Your task to perform on an android device: Open the phone app and click the voicemail tab. Image 0: 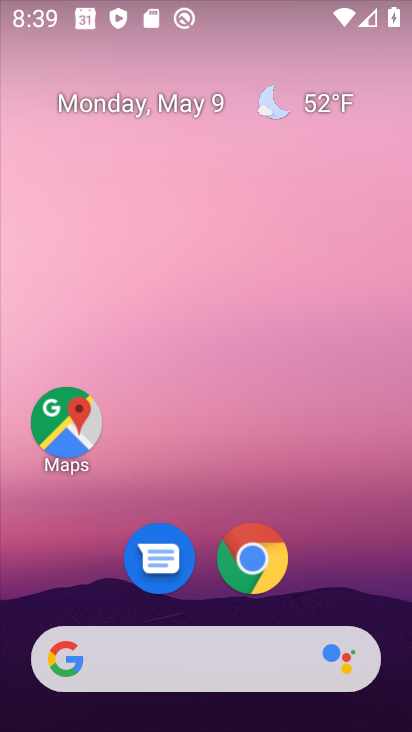
Step 0: drag from (227, 487) to (298, 111)
Your task to perform on an android device: Open the phone app and click the voicemail tab. Image 1: 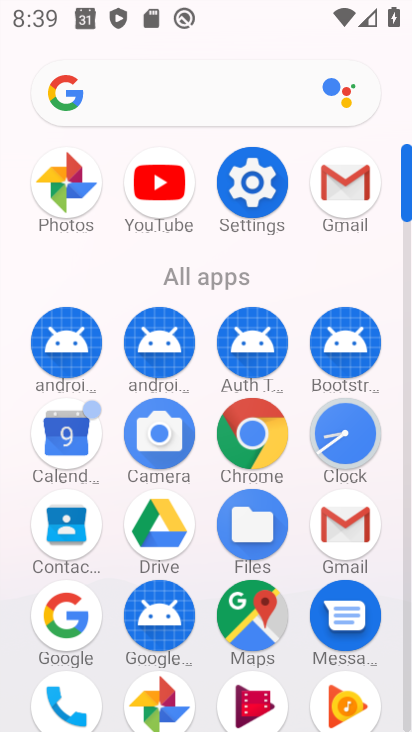
Step 1: click (59, 709)
Your task to perform on an android device: Open the phone app and click the voicemail tab. Image 2: 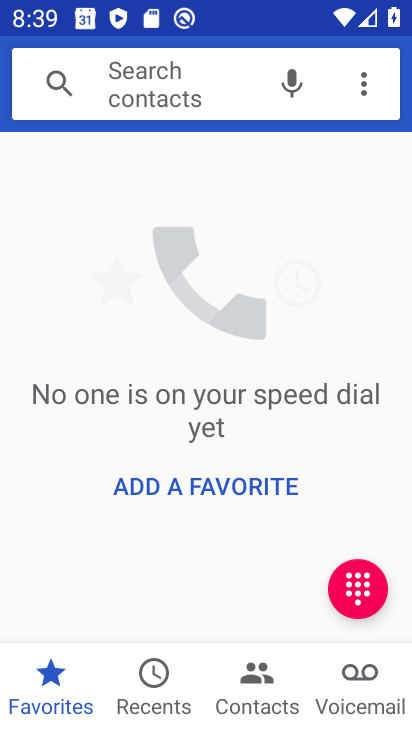
Step 2: click (353, 682)
Your task to perform on an android device: Open the phone app and click the voicemail tab. Image 3: 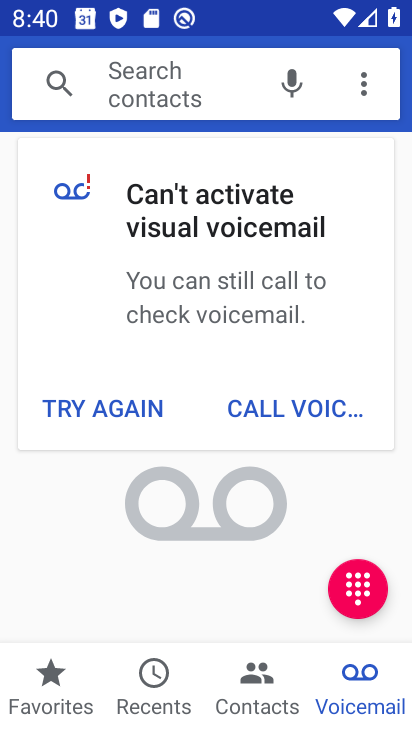
Step 3: task complete